Your task to perform on an android device: manage bookmarks in the chrome app Image 0: 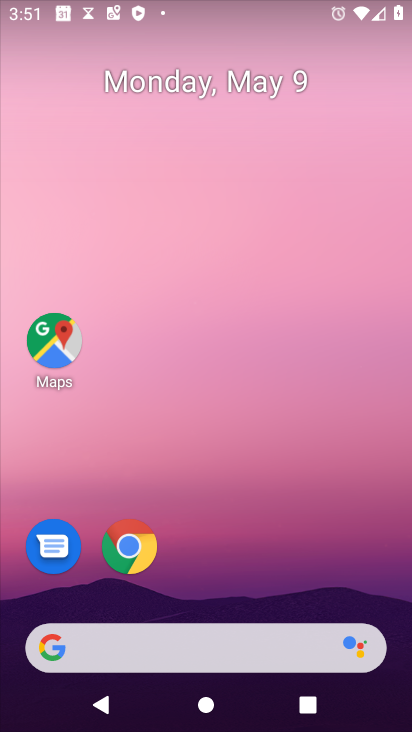
Step 0: drag from (283, 509) to (267, 82)
Your task to perform on an android device: manage bookmarks in the chrome app Image 1: 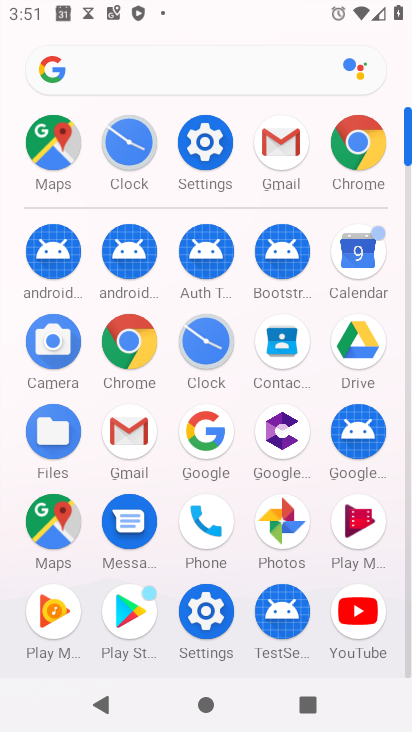
Step 1: click (350, 148)
Your task to perform on an android device: manage bookmarks in the chrome app Image 2: 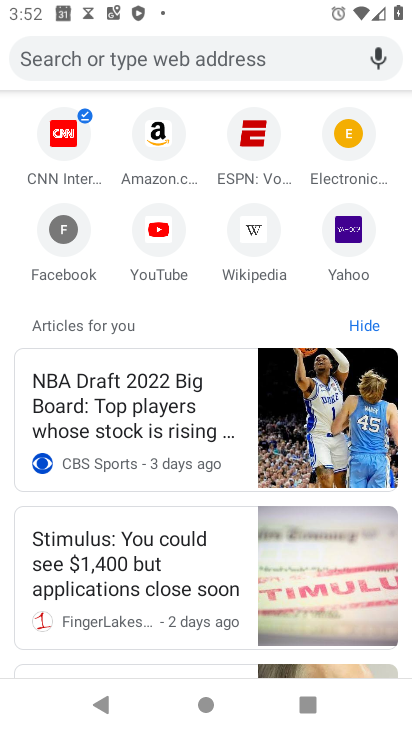
Step 2: task complete